Your task to perform on an android device: change notifications settings Image 0: 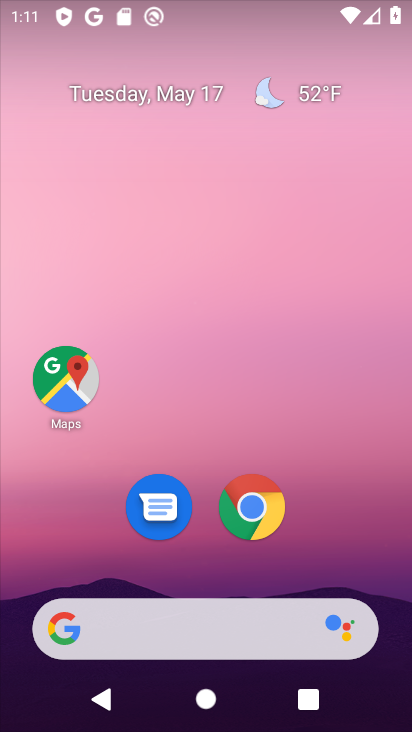
Step 0: drag from (199, 555) to (197, 68)
Your task to perform on an android device: change notifications settings Image 1: 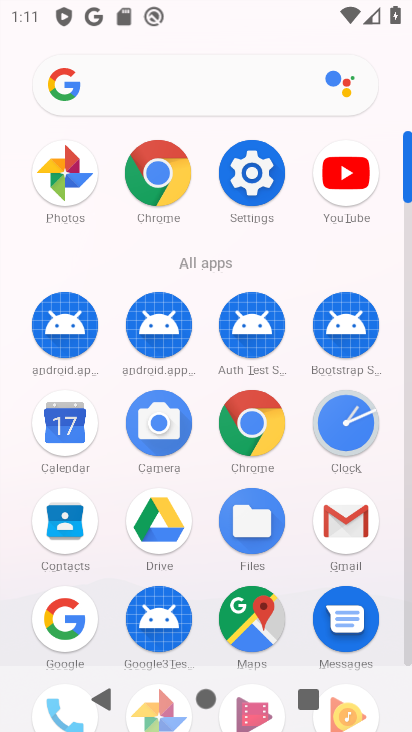
Step 1: click (251, 176)
Your task to perform on an android device: change notifications settings Image 2: 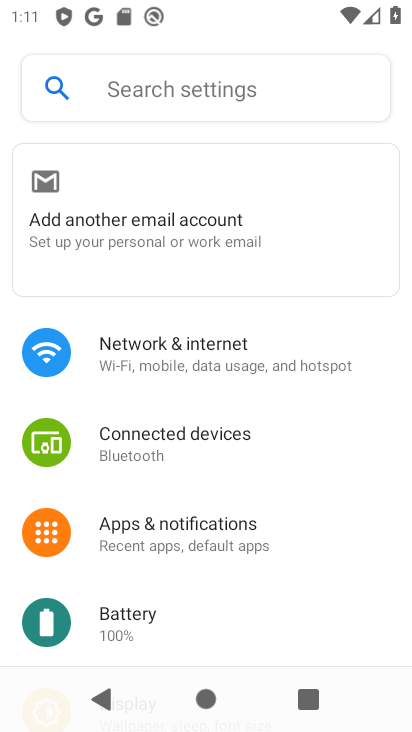
Step 2: click (176, 536)
Your task to perform on an android device: change notifications settings Image 3: 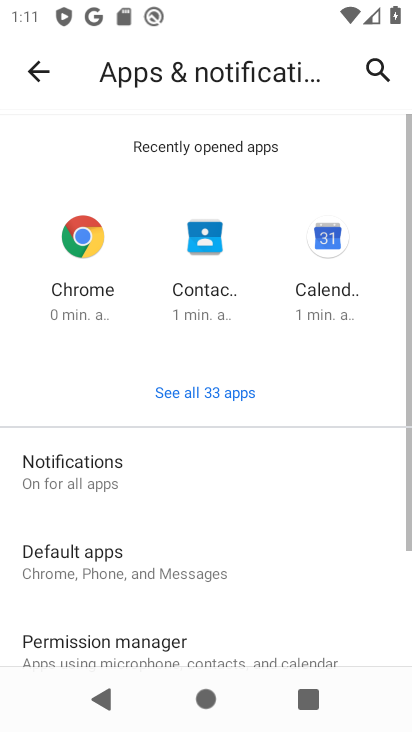
Step 3: click (116, 480)
Your task to perform on an android device: change notifications settings Image 4: 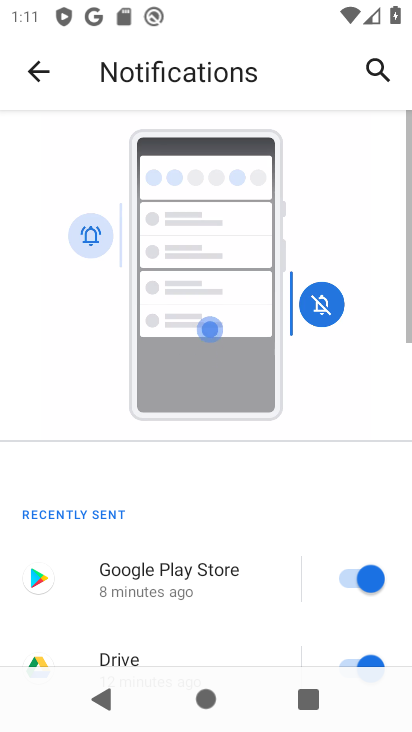
Step 4: drag from (211, 556) to (210, 88)
Your task to perform on an android device: change notifications settings Image 5: 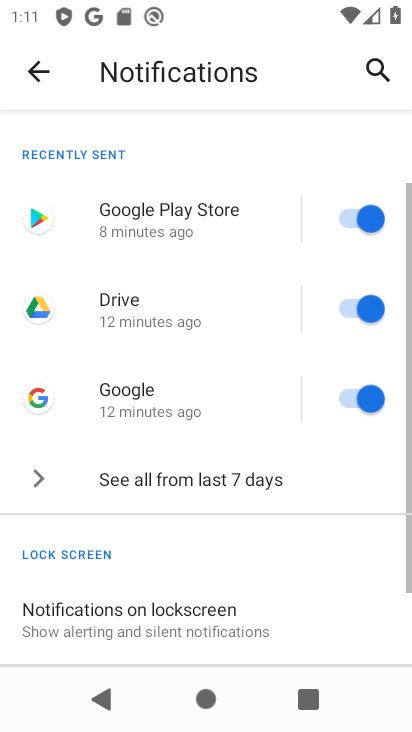
Step 5: drag from (244, 590) to (226, 126)
Your task to perform on an android device: change notifications settings Image 6: 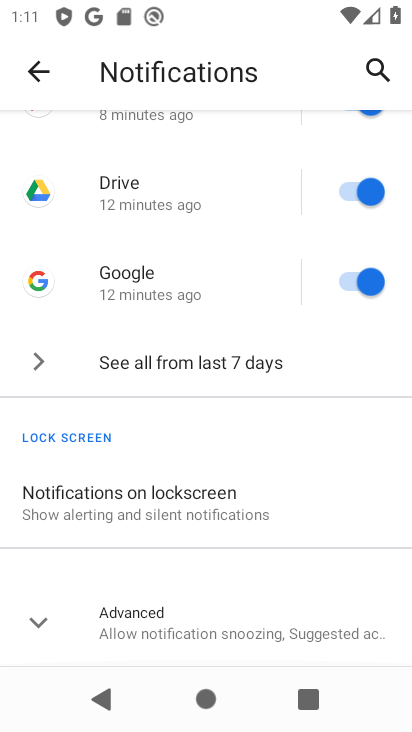
Step 6: click (173, 610)
Your task to perform on an android device: change notifications settings Image 7: 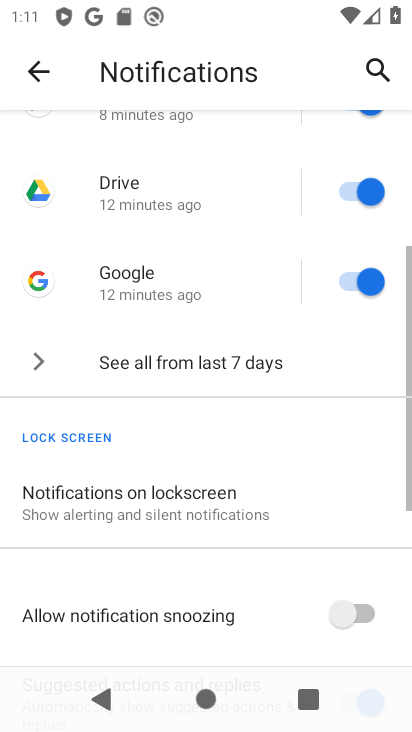
Step 7: drag from (271, 597) to (274, 127)
Your task to perform on an android device: change notifications settings Image 8: 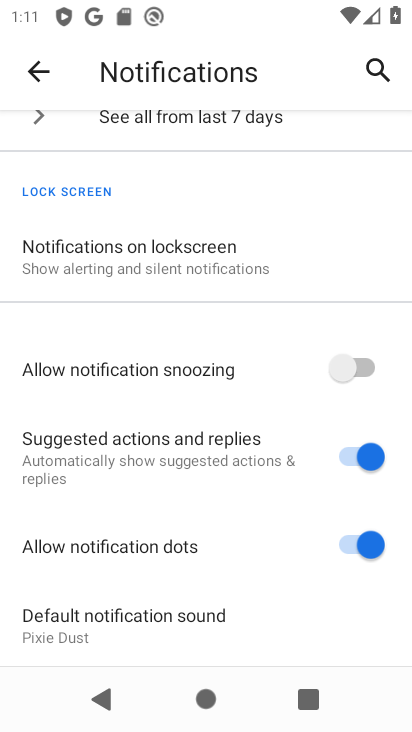
Step 8: click (343, 356)
Your task to perform on an android device: change notifications settings Image 9: 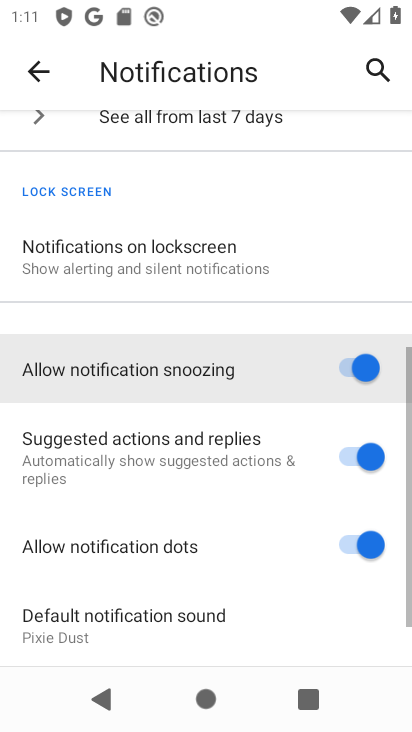
Step 9: click (375, 458)
Your task to perform on an android device: change notifications settings Image 10: 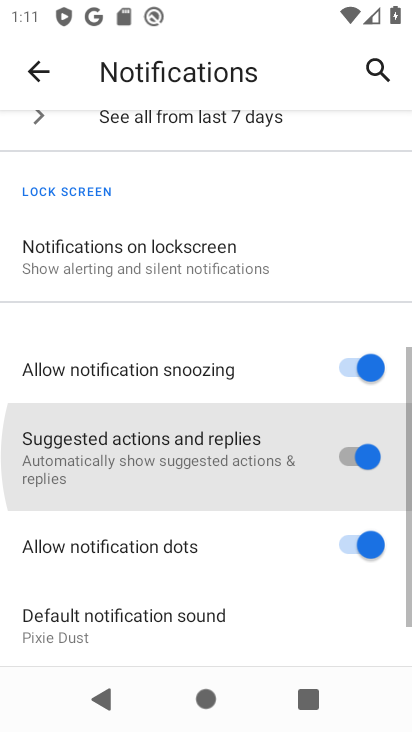
Step 10: click (366, 531)
Your task to perform on an android device: change notifications settings Image 11: 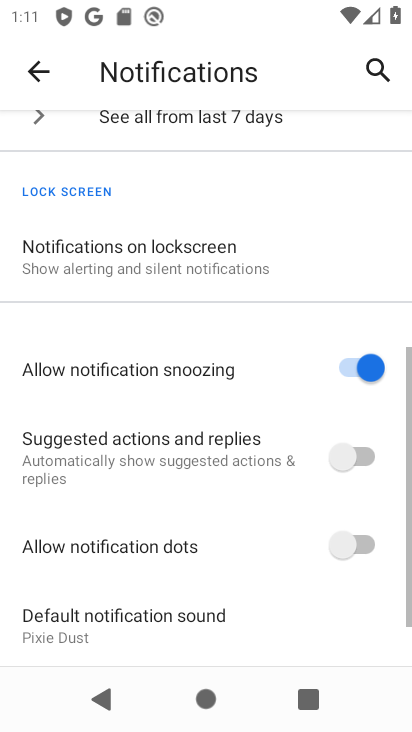
Step 11: task complete